Your task to perform on an android device: Open location settings Image 0: 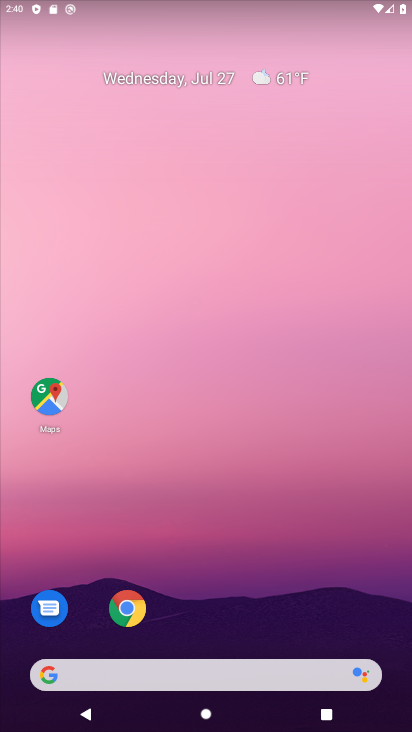
Step 0: press home button
Your task to perform on an android device: Open location settings Image 1: 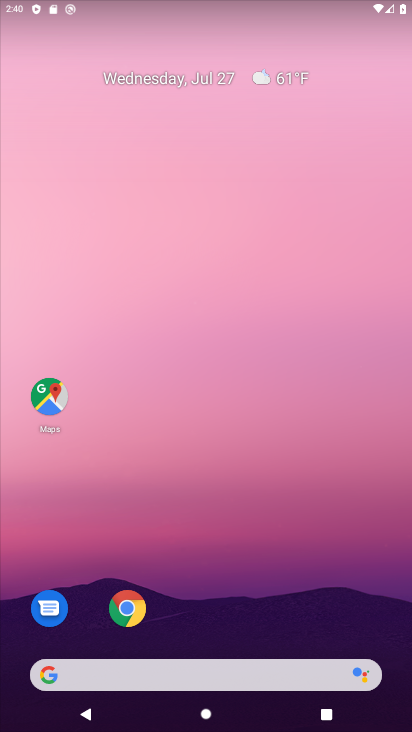
Step 1: drag from (264, 599) to (264, 49)
Your task to perform on an android device: Open location settings Image 2: 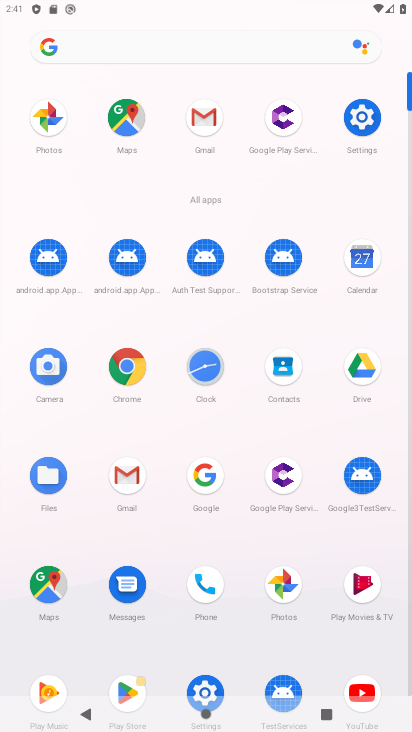
Step 2: click (361, 115)
Your task to perform on an android device: Open location settings Image 3: 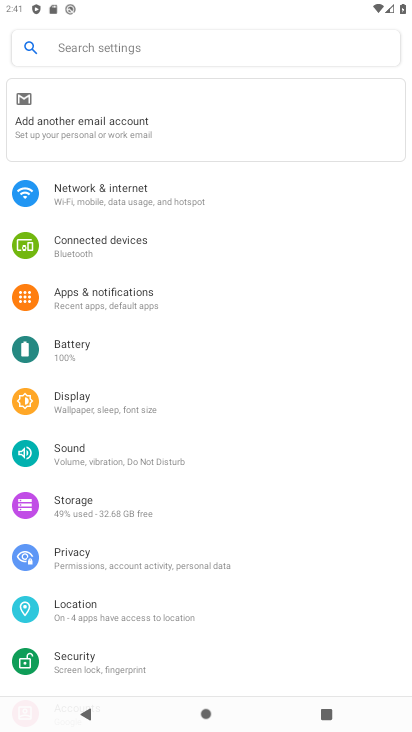
Step 3: click (93, 600)
Your task to perform on an android device: Open location settings Image 4: 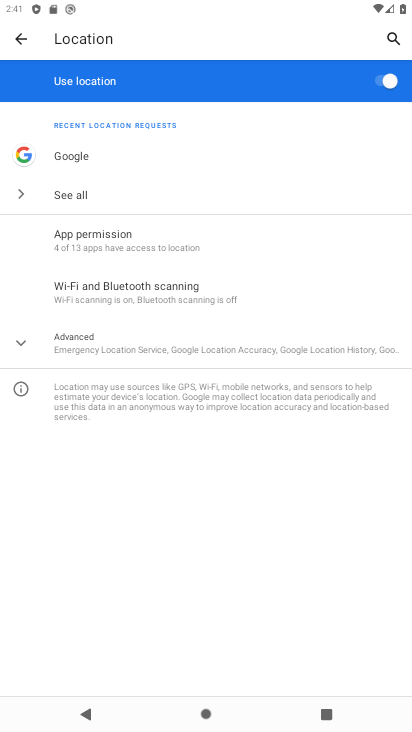
Step 4: task complete